Your task to perform on an android device: Open privacy settings Image 0: 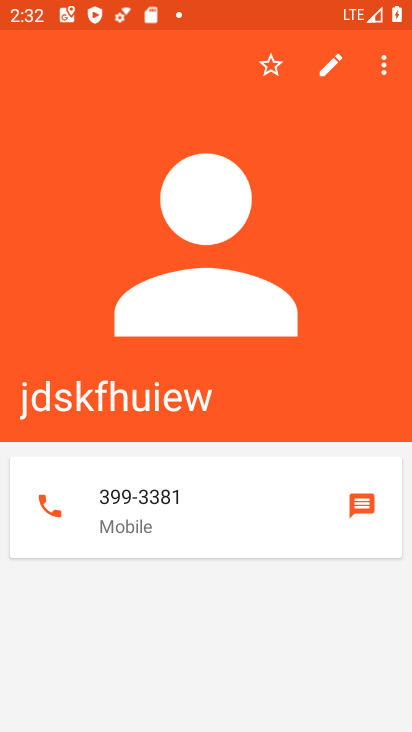
Step 0: press home button
Your task to perform on an android device: Open privacy settings Image 1: 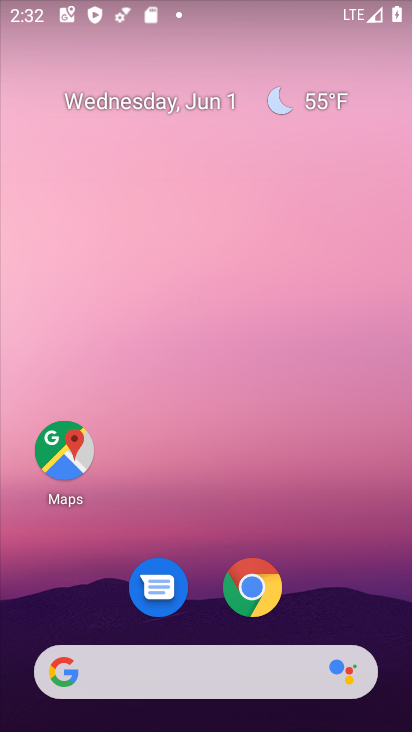
Step 1: drag from (237, 656) to (277, 0)
Your task to perform on an android device: Open privacy settings Image 2: 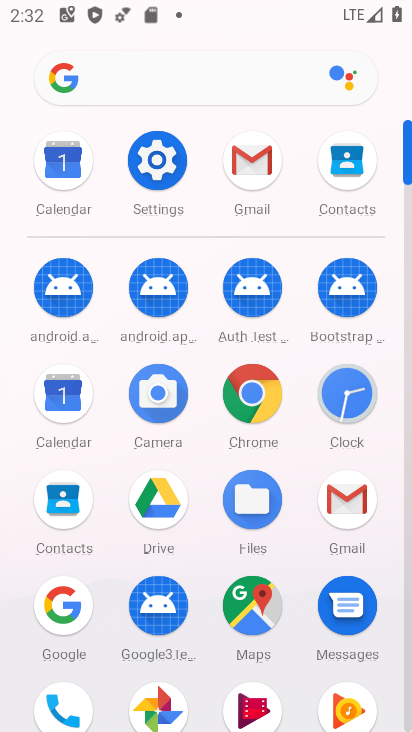
Step 2: click (158, 179)
Your task to perform on an android device: Open privacy settings Image 3: 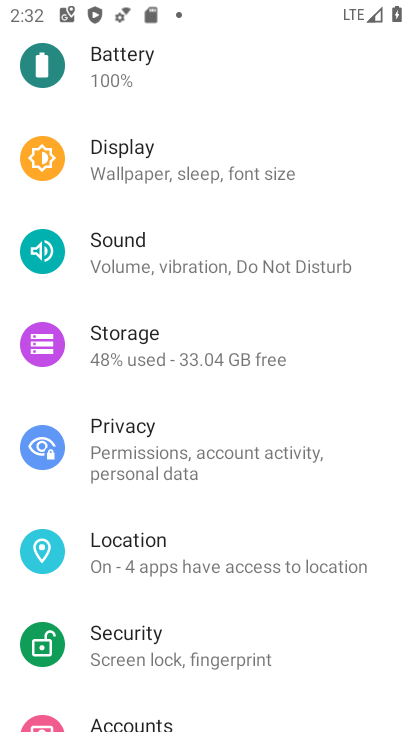
Step 3: click (170, 484)
Your task to perform on an android device: Open privacy settings Image 4: 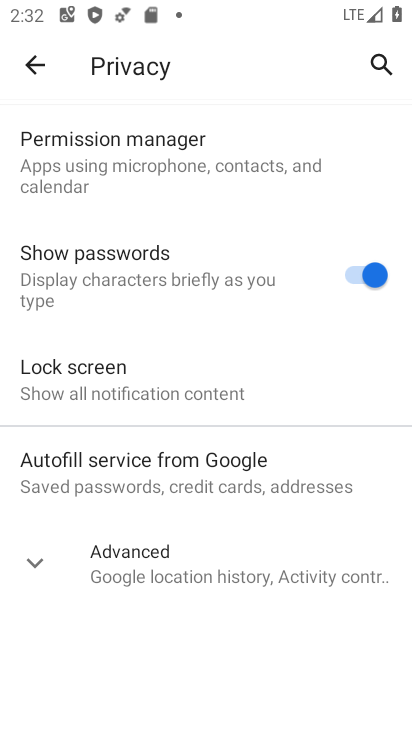
Step 4: task complete